Your task to perform on an android device: create a new album in the google photos Image 0: 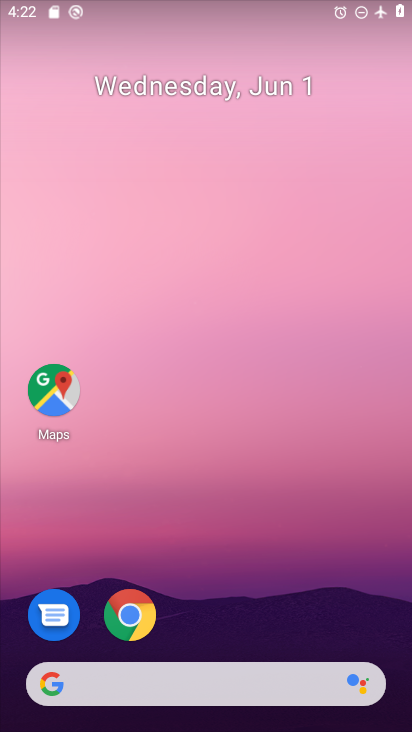
Step 0: drag from (249, 631) to (307, 92)
Your task to perform on an android device: create a new album in the google photos Image 1: 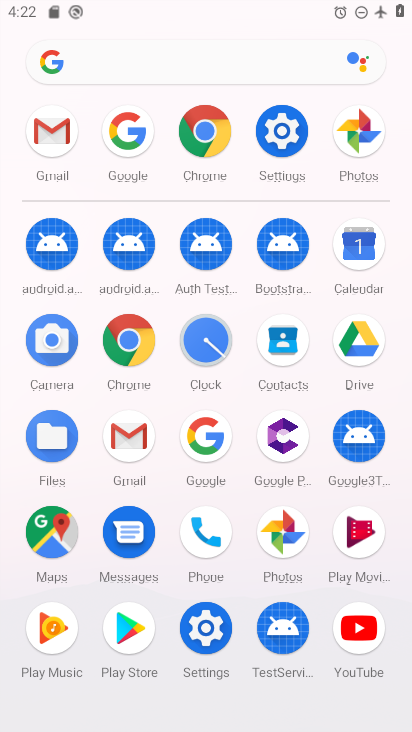
Step 1: click (277, 520)
Your task to perform on an android device: create a new album in the google photos Image 2: 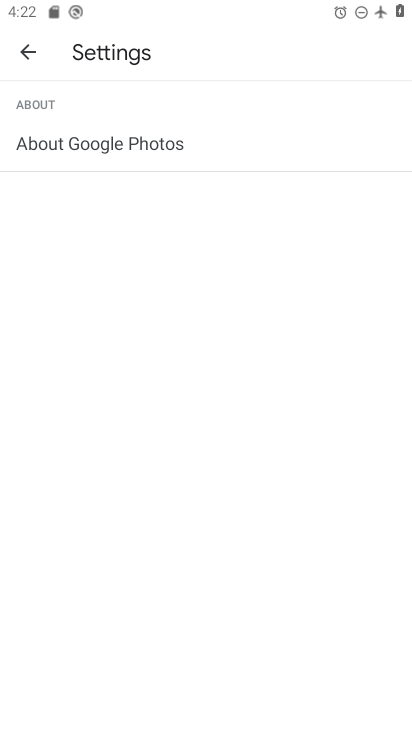
Step 2: click (35, 49)
Your task to perform on an android device: create a new album in the google photos Image 3: 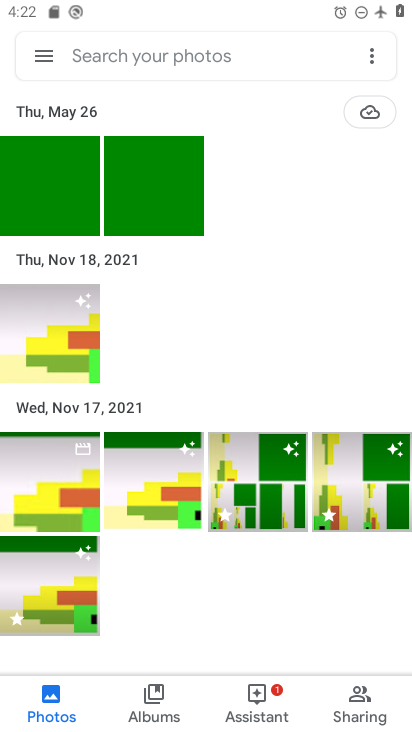
Step 3: click (368, 56)
Your task to perform on an android device: create a new album in the google photos Image 4: 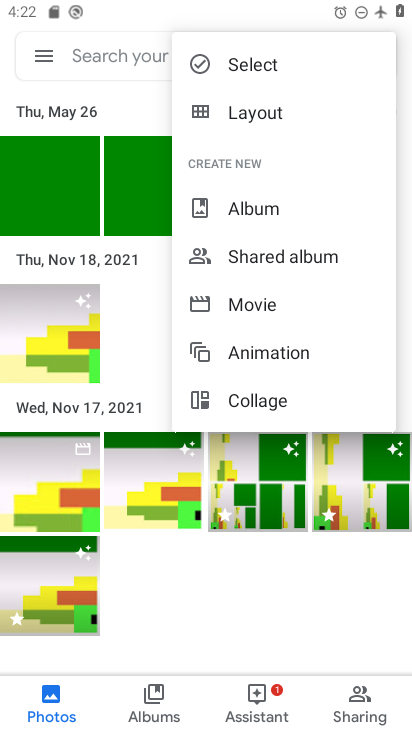
Step 4: click (279, 209)
Your task to perform on an android device: create a new album in the google photos Image 5: 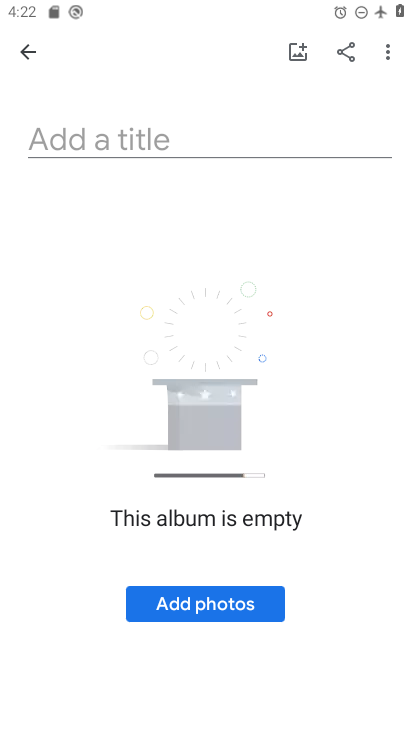
Step 5: click (214, 607)
Your task to perform on an android device: create a new album in the google photos Image 6: 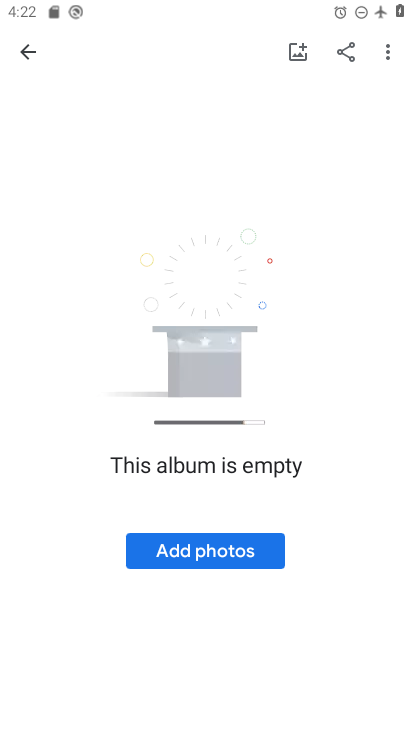
Step 6: click (196, 539)
Your task to perform on an android device: create a new album in the google photos Image 7: 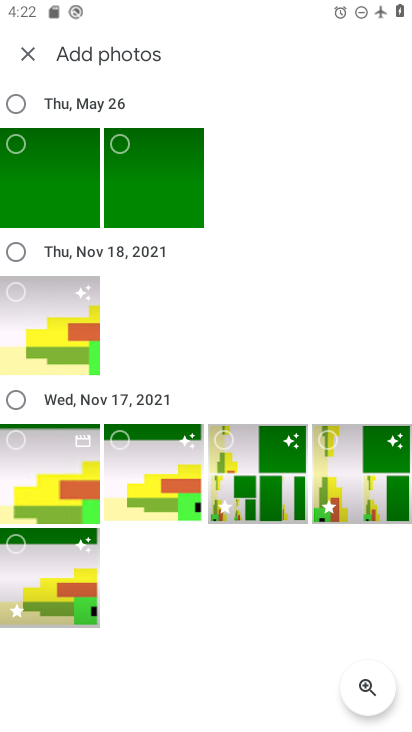
Step 7: click (25, 192)
Your task to perform on an android device: create a new album in the google photos Image 8: 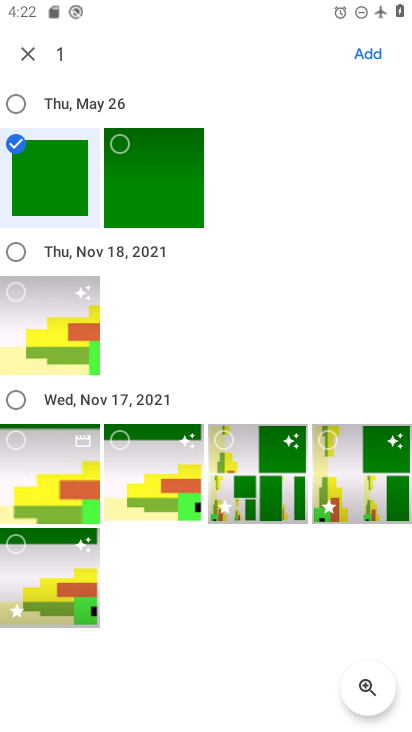
Step 8: click (26, 278)
Your task to perform on an android device: create a new album in the google photos Image 9: 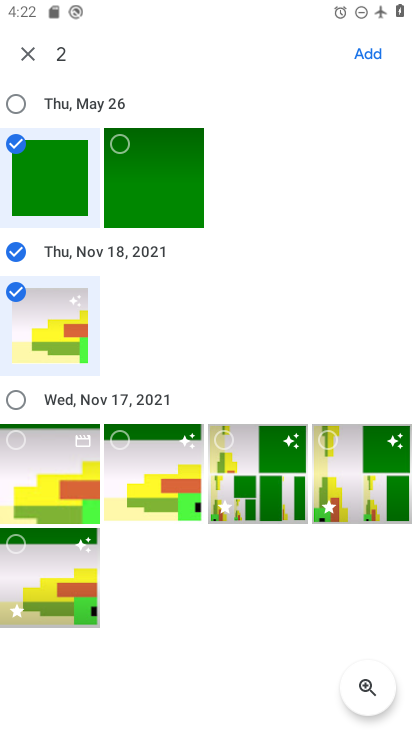
Step 9: click (53, 573)
Your task to perform on an android device: create a new album in the google photos Image 10: 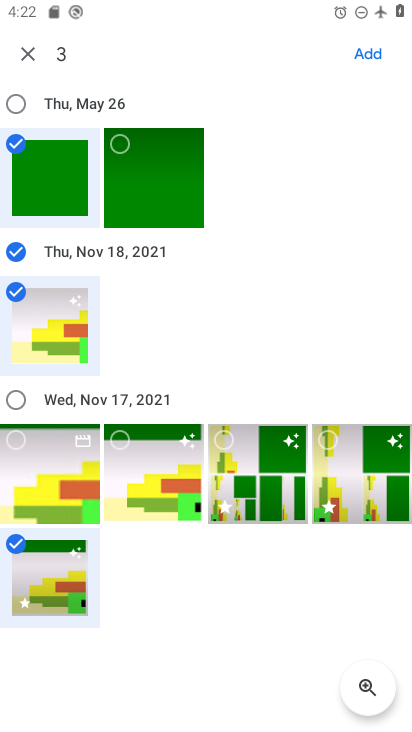
Step 10: click (51, 464)
Your task to perform on an android device: create a new album in the google photos Image 11: 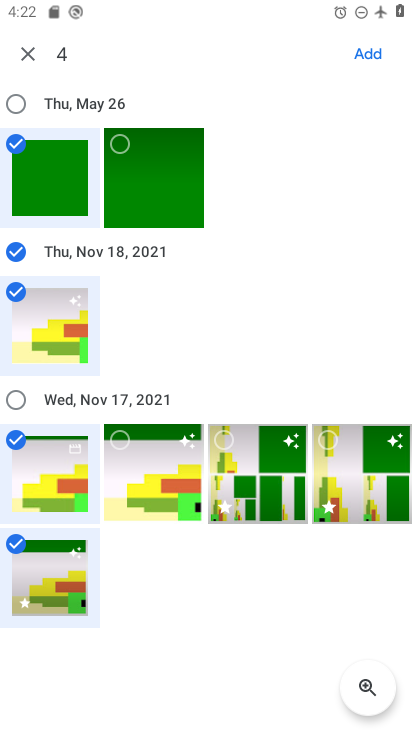
Step 11: click (369, 54)
Your task to perform on an android device: create a new album in the google photos Image 12: 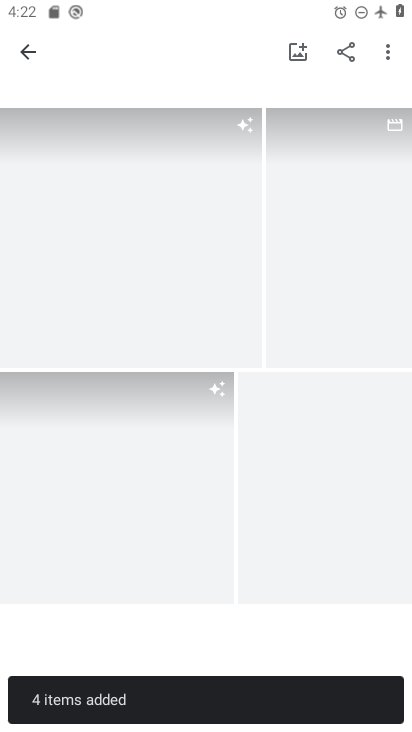
Step 12: drag from (123, 203) to (171, 569)
Your task to perform on an android device: create a new album in the google photos Image 13: 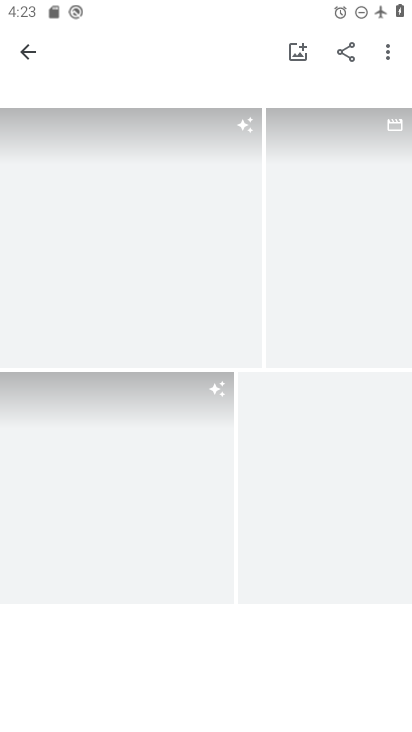
Step 13: drag from (132, 211) to (213, 720)
Your task to perform on an android device: create a new album in the google photos Image 14: 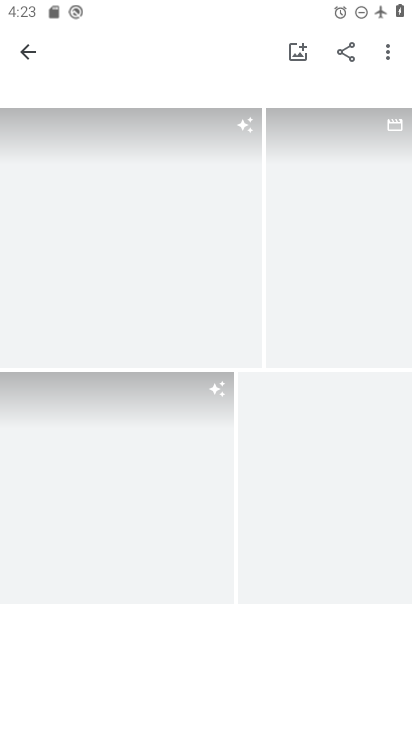
Step 14: drag from (159, 486) to (246, 138)
Your task to perform on an android device: create a new album in the google photos Image 15: 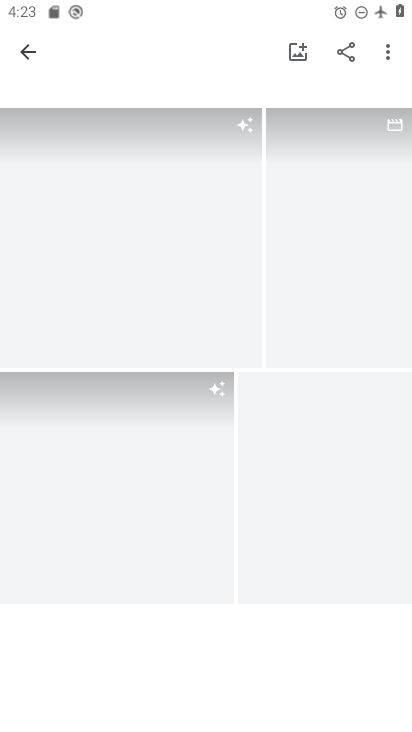
Step 15: drag from (175, 200) to (241, 691)
Your task to perform on an android device: create a new album in the google photos Image 16: 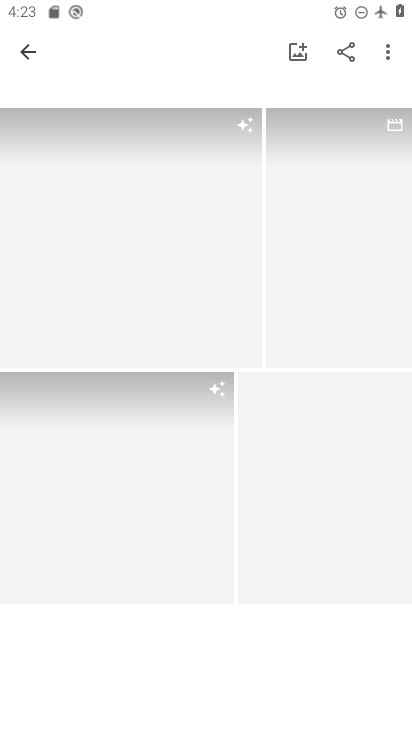
Step 16: click (386, 46)
Your task to perform on an android device: create a new album in the google photos Image 17: 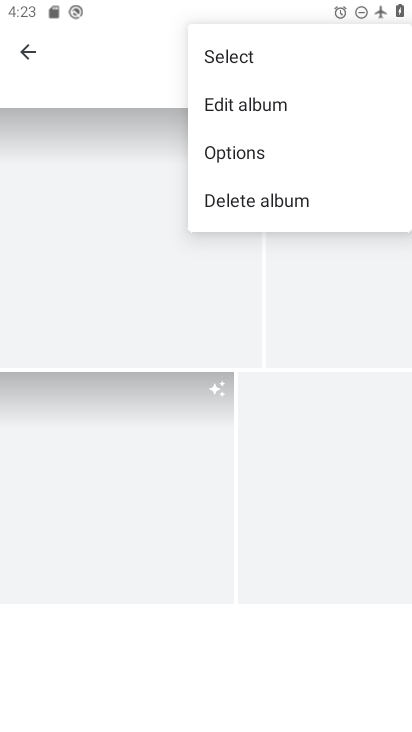
Step 17: click (259, 108)
Your task to perform on an android device: create a new album in the google photos Image 18: 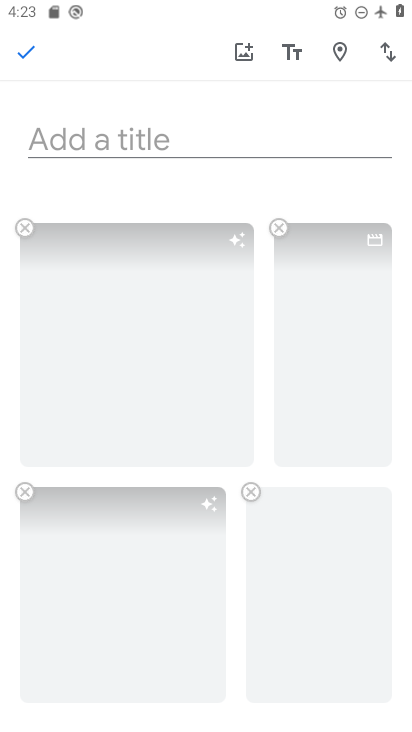
Step 18: click (51, 135)
Your task to perform on an android device: create a new album in the google photos Image 19: 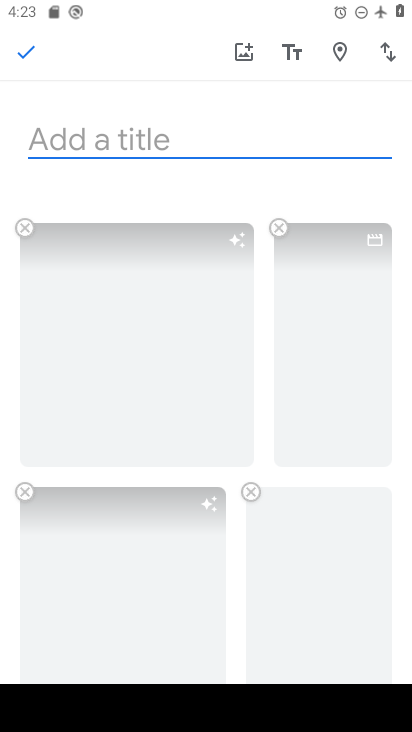
Step 19: type "gfhdxtf"
Your task to perform on an android device: create a new album in the google photos Image 20: 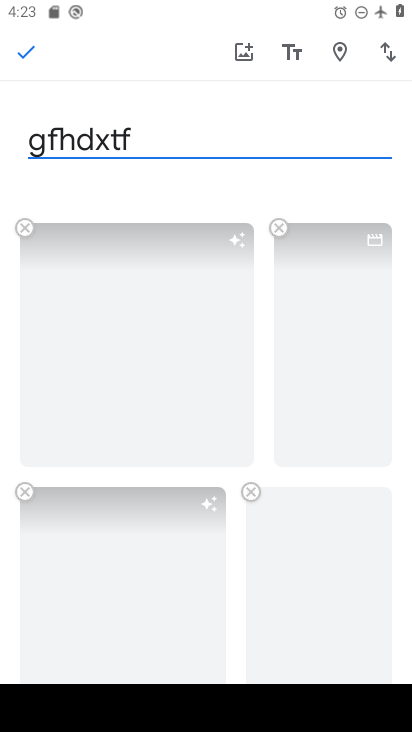
Step 20: click (29, 53)
Your task to perform on an android device: create a new album in the google photos Image 21: 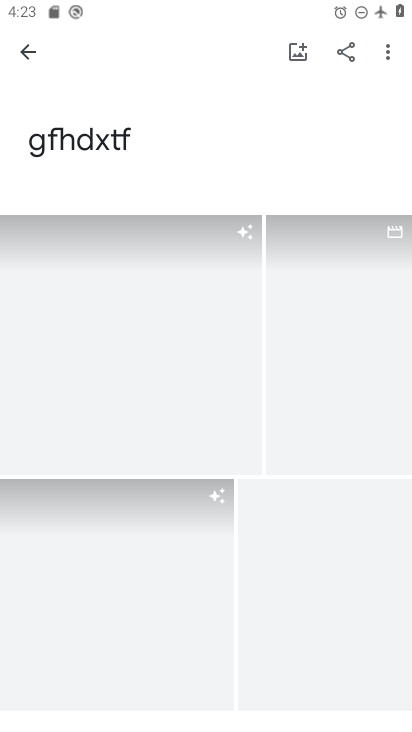
Step 21: task complete